Your task to perform on an android device: visit the assistant section in the google photos Image 0: 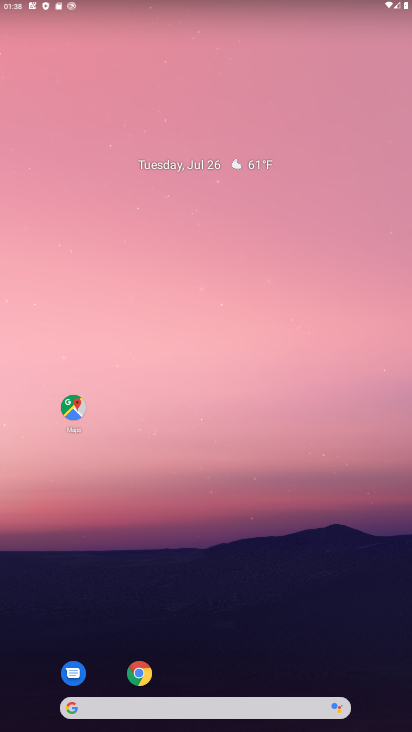
Step 0: drag from (240, 701) to (239, 173)
Your task to perform on an android device: visit the assistant section in the google photos Image 1: 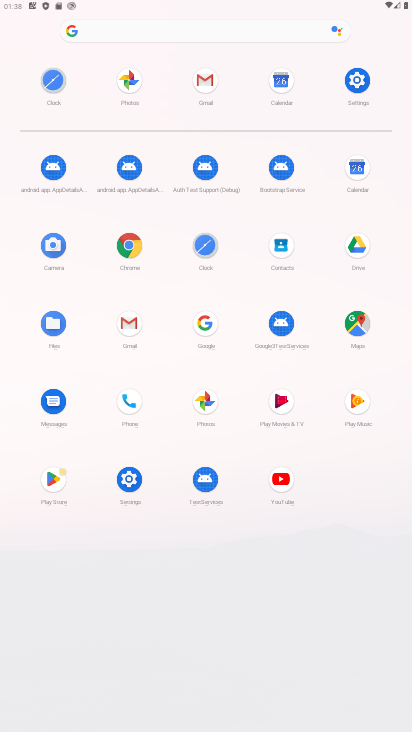
Step 1: click (207, 403)
Your task to perform on an android device: visit the assistant section in the google photos Image 2: 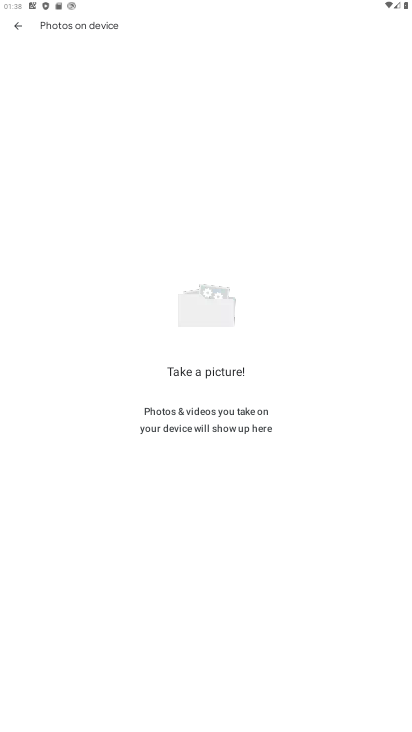
Step 2: click (14, 21)
Your task to perform on an android device: visit the assistant section in the google photos Image 3: 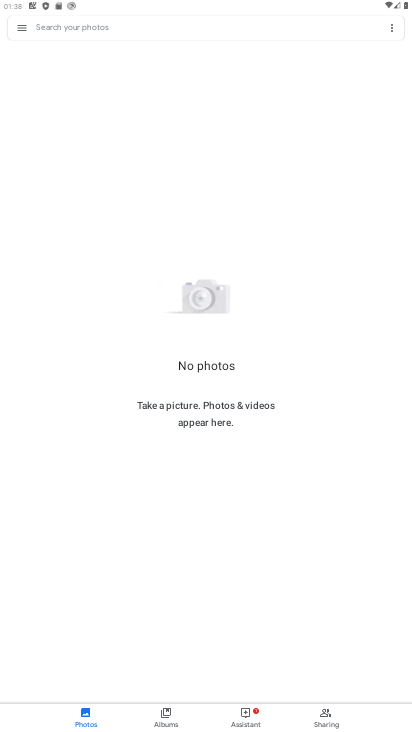
Step 3: click (249, 707)
Your task to perform on an android device: visit the assistant section in the google photos Image 4: 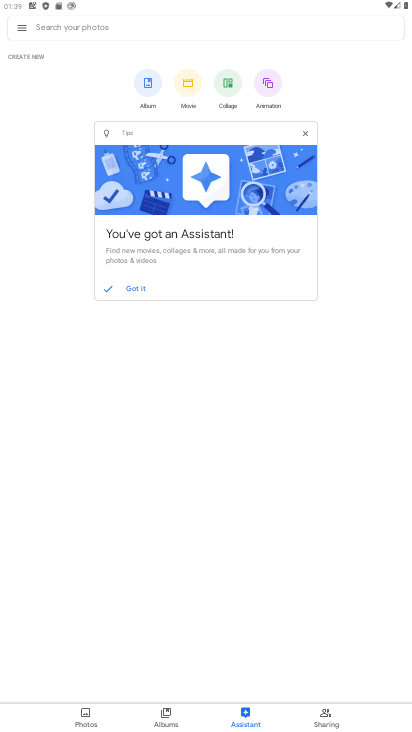
Step 4: task complete